Your task to perform on an android device: Open ESPN.com Image 0: 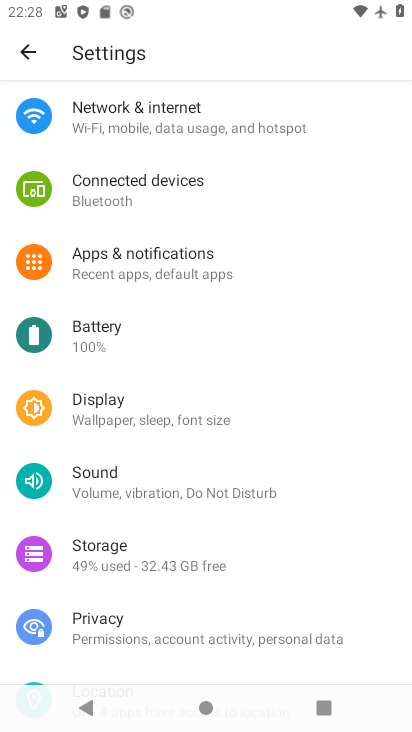
Step 0: press home button
Your task to perform on an android device: Open ESPN.com Image 1: 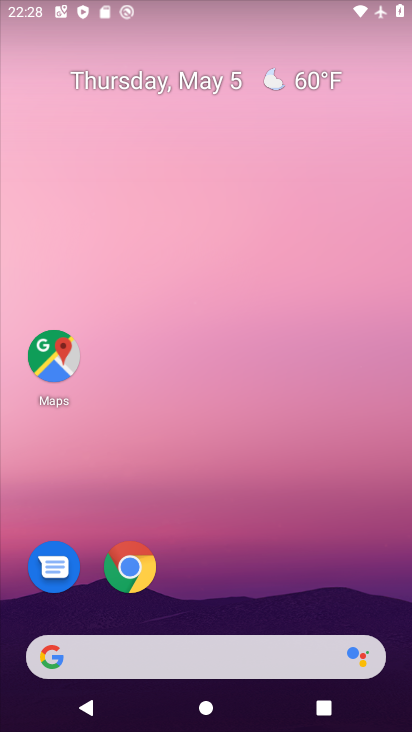
Step 1: drag from (256, 595) to (248, 480)
Your task to perform on an android device: Open ESPN.com Image 2: 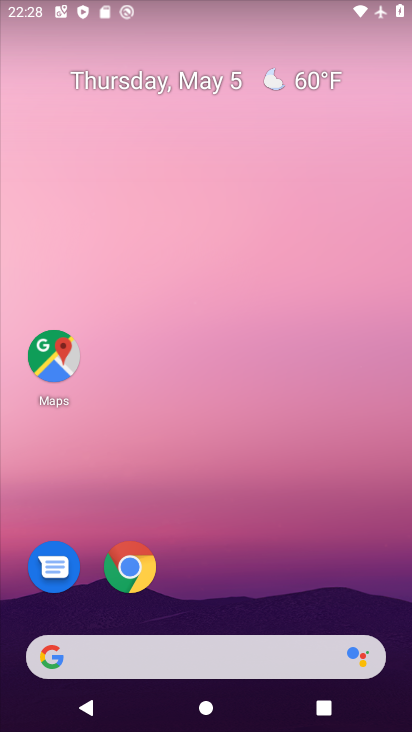
Step 2: click (132, 552)
Your task to perform on an android device: Open ESPN.com Image 3: 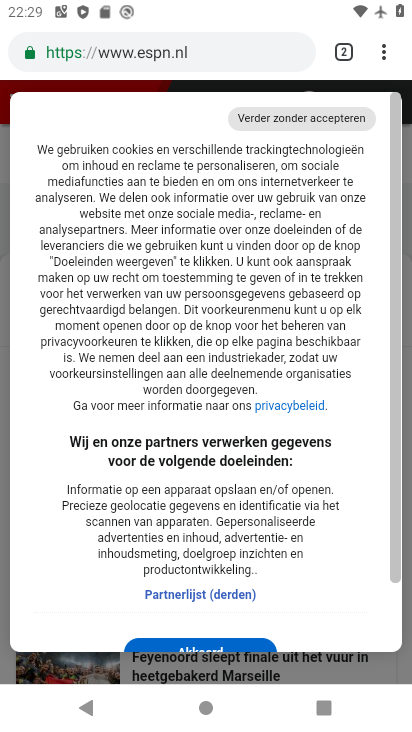
Step 3: drag from (278, 539) to (278, 199)
Your task to perform on an android device: Open ESPN.com Image 4: 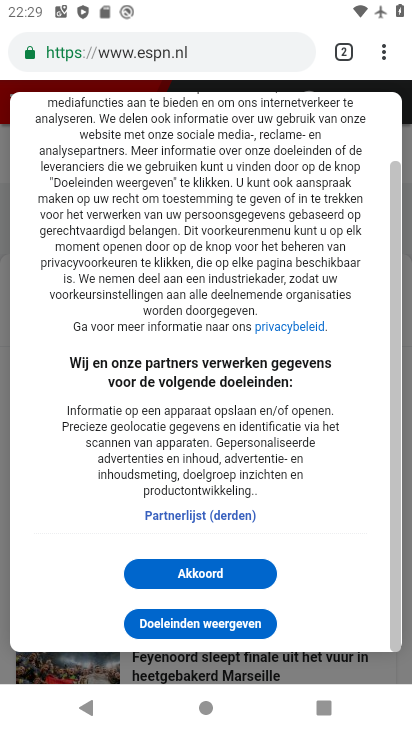
Step 4: click (354, 53)
Your task to perform on an android device: Open ESPN.com Image 5: 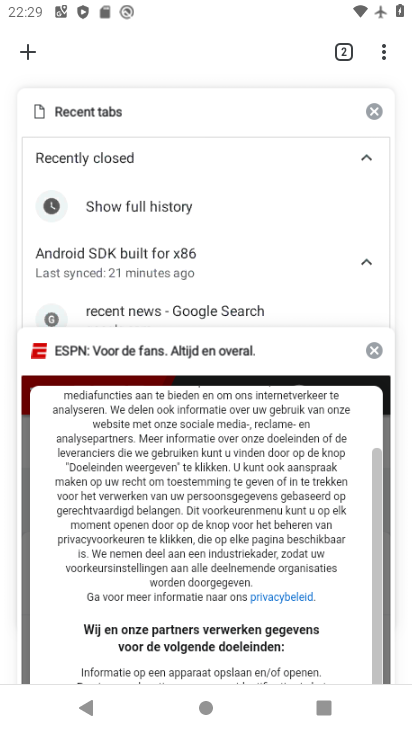
Step 5: click (34, 50)
Your task to perform on an android device: Open ESPN.com Image 6: 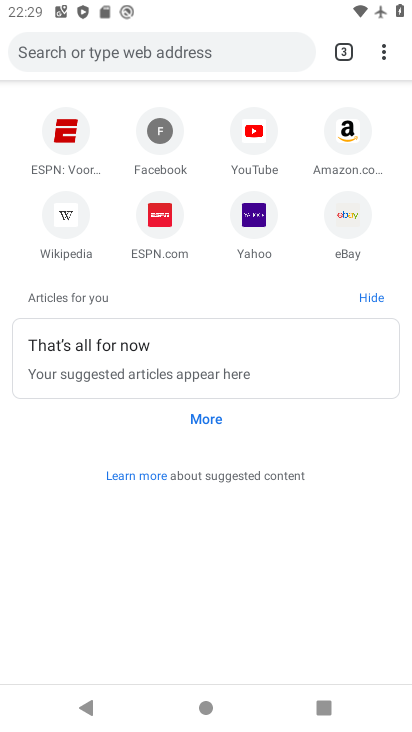
Step 6: click (164, 215)
Your task to perform on an android device: Open ESPN.com Image 7: 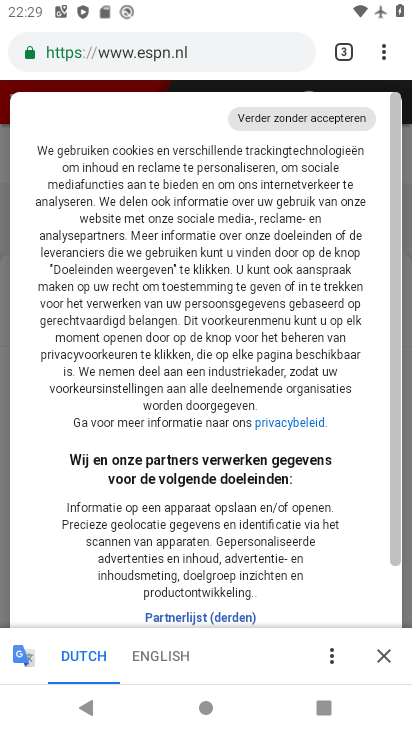
Step 7: task complete